Your task to perform on an android device: check data usage Image 0: 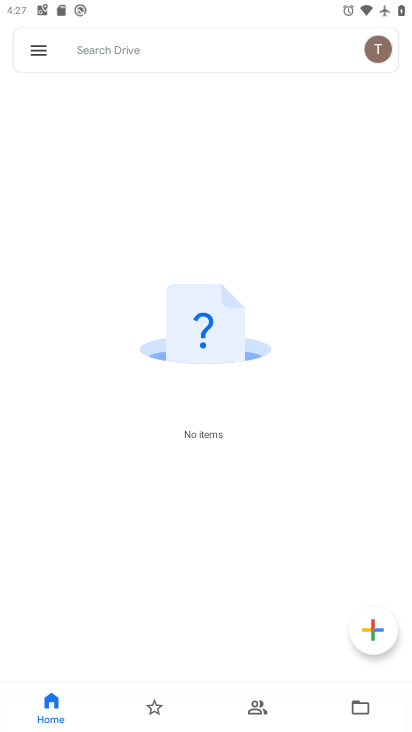
Step 0: press home button
Your task to perform on an android device: check data usage Image 1: 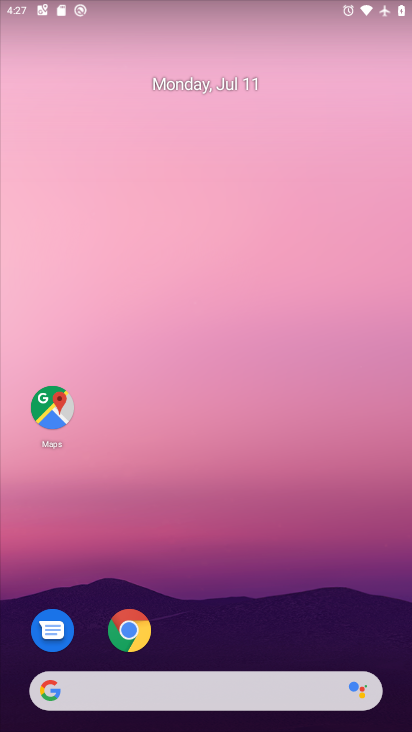
Step 1: drag from (287, 623) to (201, 133)
Your task to perform on an android device: check data usage Image 2: 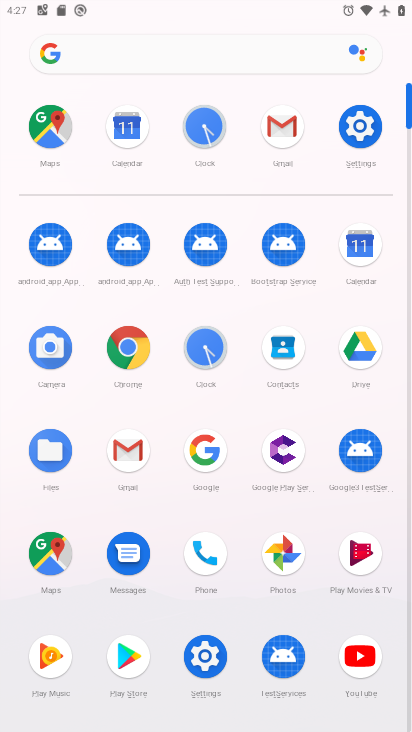
Step 2: click (367, 132)
Your task to perform on an android device: check data usage Image 3: 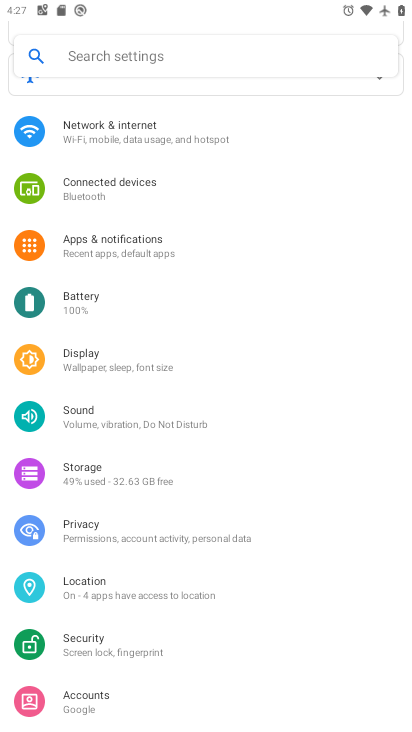
Step 3: click (176, 478)
Your task to perform on an android device: check data usage Image 4: 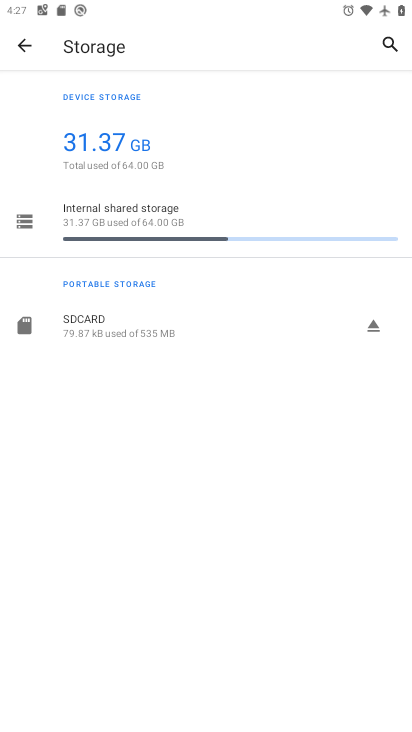
Step 4: task complete